Your task to perform on an android device: Search for vegetarian restaurants on Maps Image 0: 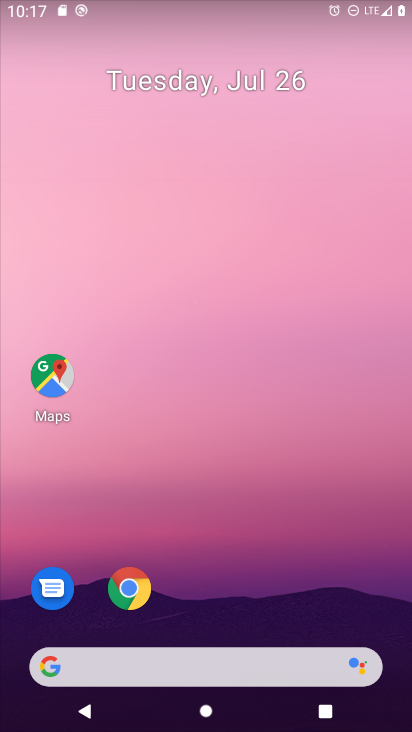
Step 0: drag from (236, 611) to (255, 136)
Your task to perform on an android device: Search for vegetarian restaurants on Maps Image 1: 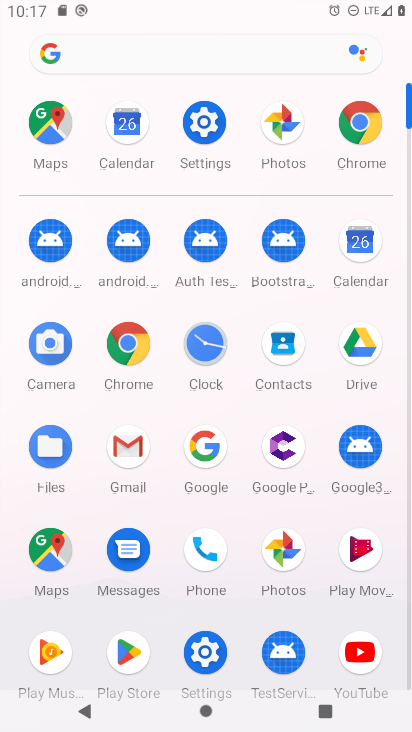
Step 1: click (48, 560)
Your task to perform on an android device: Search for vegetarian restaurants on Maps Image 2: 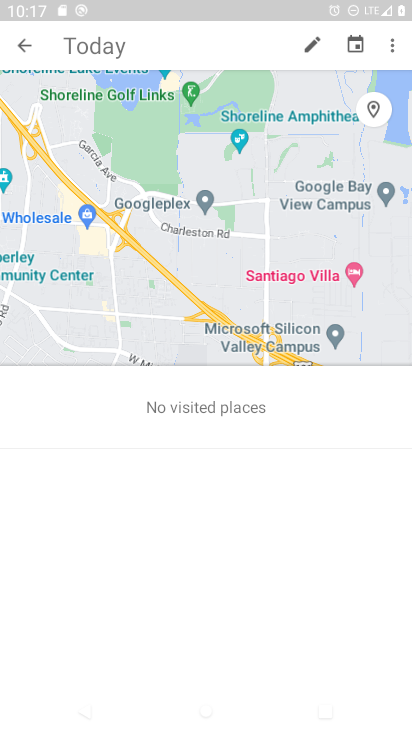
Step 2: click (19, 45)
Your task to perform on an android device: Search for vegetarian restaurants on Maps Image 3: 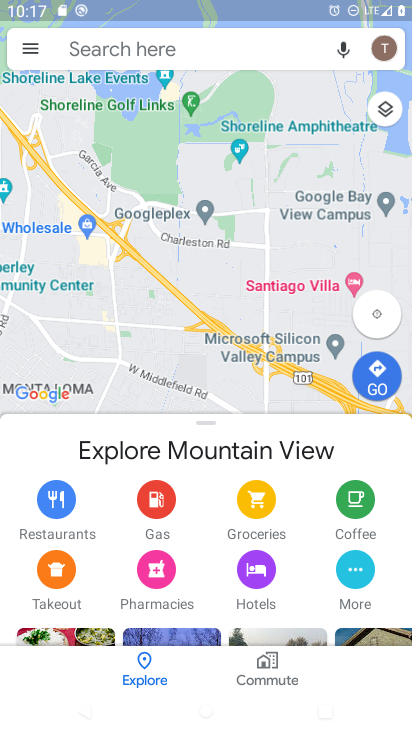
Step 3: click (90, 54)
Your task to perform on an android device: Search for vegetarian restaurants on Maps Image 4: 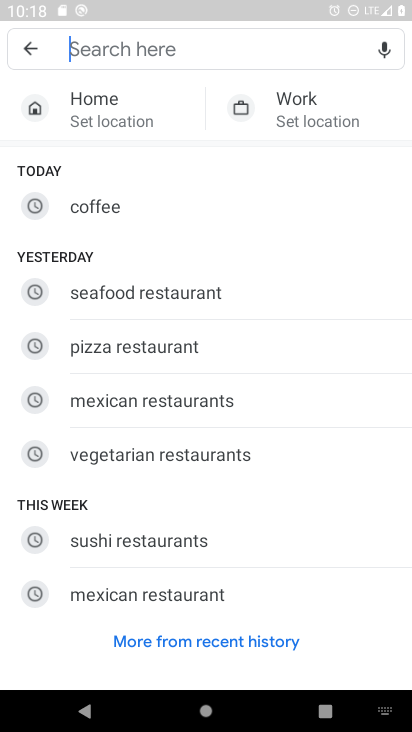
Step 4: click (148, 456)
Your task to perform on an android device: Search for vegetarian restaurants on Maps Image 5: 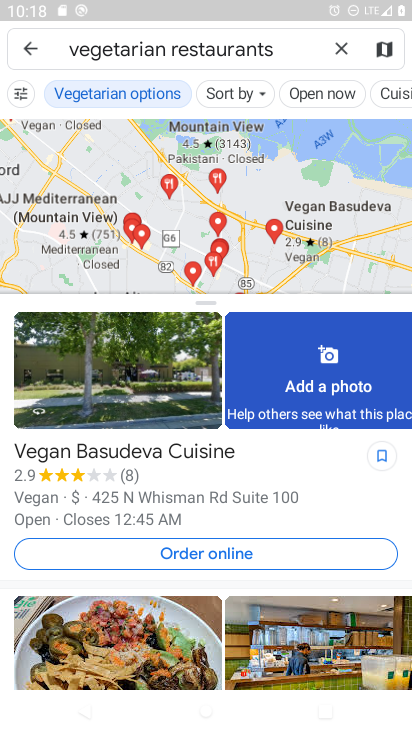
Step 5: task complete